Your task to perform on an android device: search for starred emails in the gmail app Image 0: 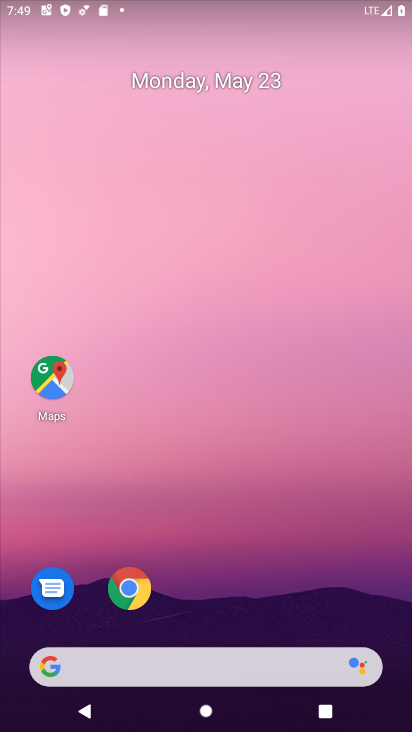
Step 0: drag from (401, 702) to (360, 0)
Your task to perform on an android device: search for starred emails in the gmail app Image 1: 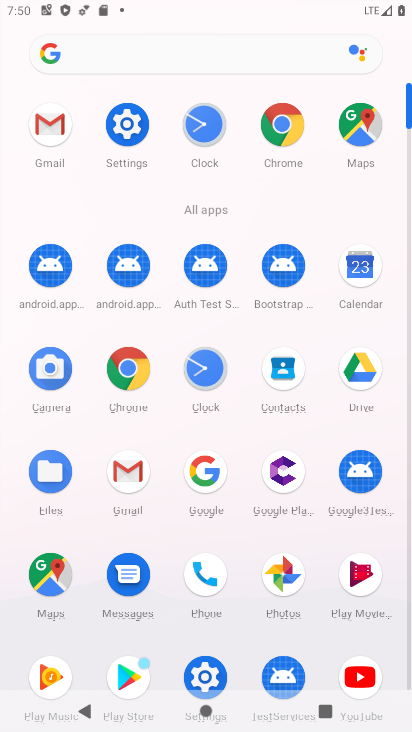
Step 1: click (139, 464)
Your task to perform on an android device: search for starred emails in the gmail app Image 2: 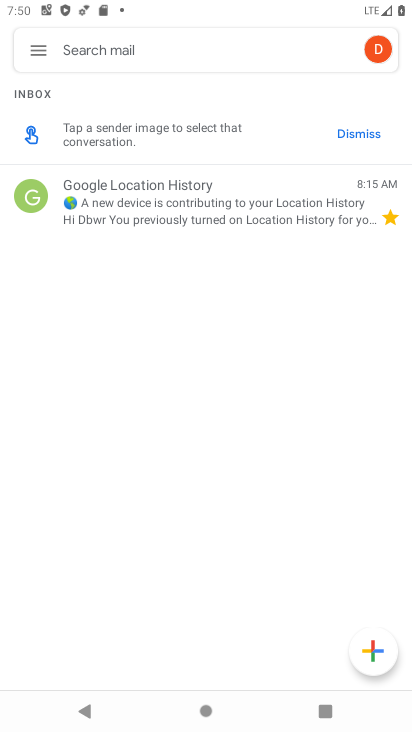
Step 2: click (40, 39)
Your task to perform on an android device: search for starred emails in the gmail app Image 3: 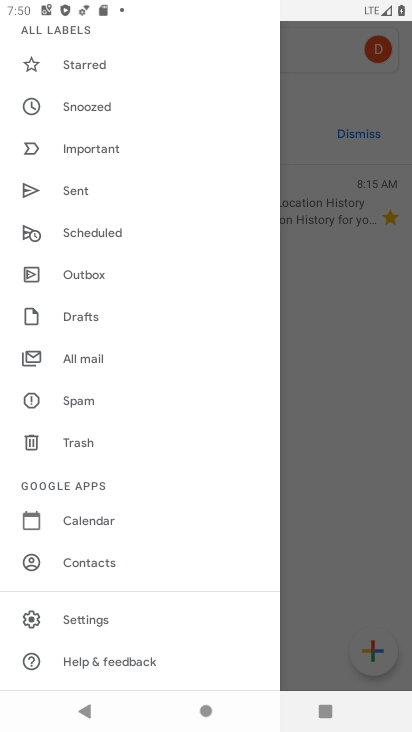
Step 3: click (83, 64)
Your task to perform on an android device: search for starred emails in the gmail app Image 4: 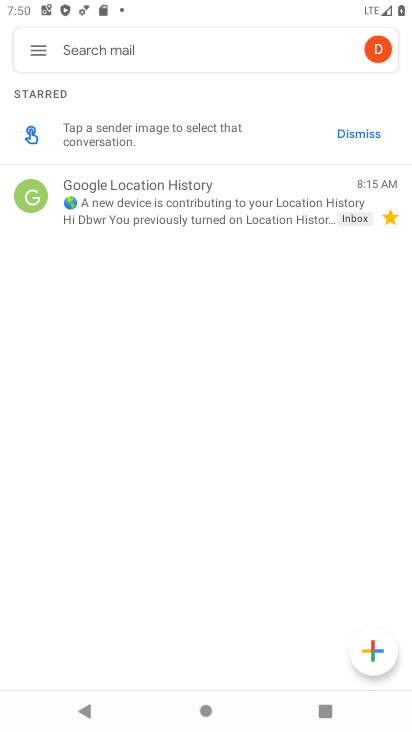
Step 4: task complete